Your task to perform on an android device: turn on location history Image 0: 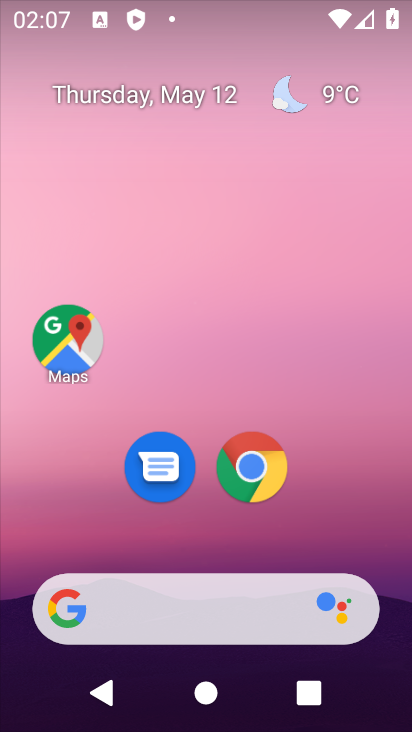
Step 0: drag from (323, 536) to (355, 183)
Your task to perform on an android device: turn on location history Image 1: 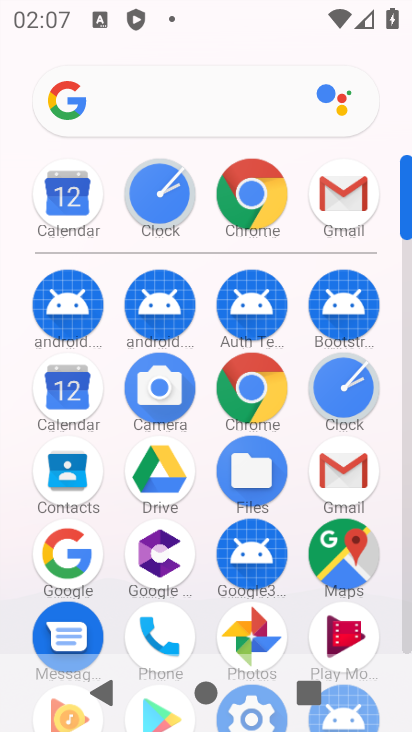
Step 1: drag from (207, 520) to (237, 184)
Your task to perform on an android device: turn on location history Image 2: 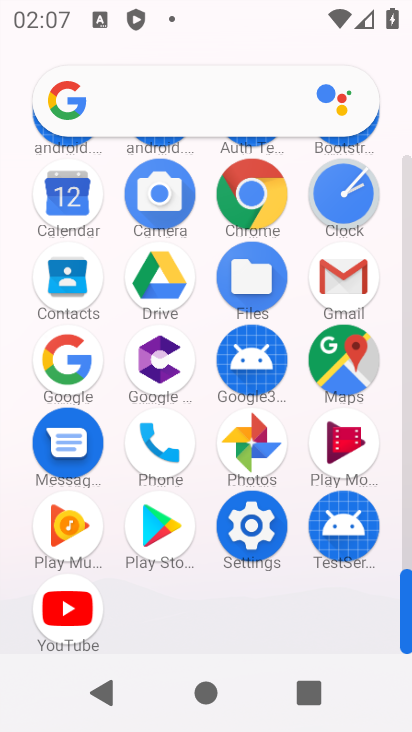
Step 2: click (251, 510)
Your task to perform on an android device: turn on location history Image 3: 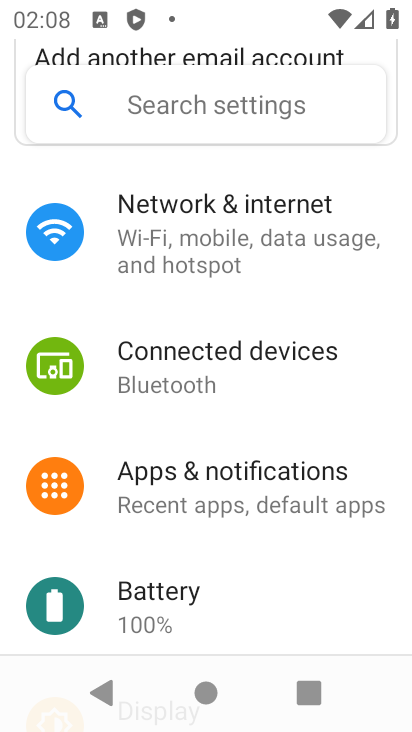
Step 3: drag from (250, 420) to (274, 220)
Your task to perform on an android device: turn on location history Image 4: 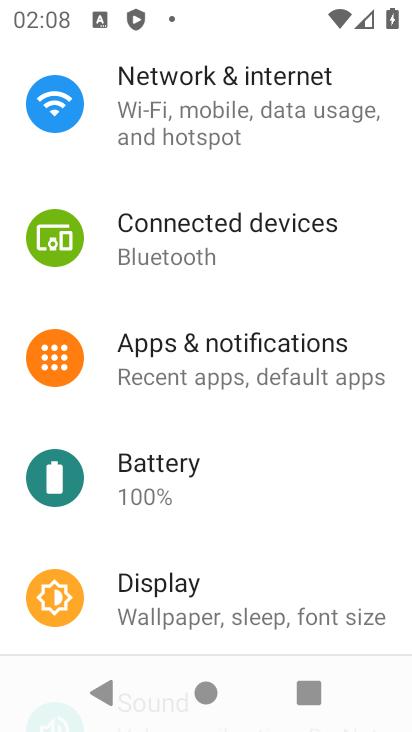
Step 4: drag from (231, 509) to (279, 274)
Your task to perform on an android device: turn on location history Image 5: 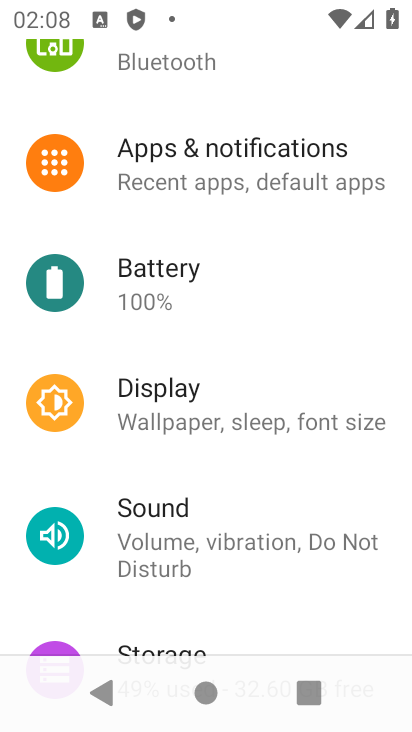
Step 5: drag from (237, 578) to (316, 191)
Your task to perform on an android device: turn on location history Image 6: 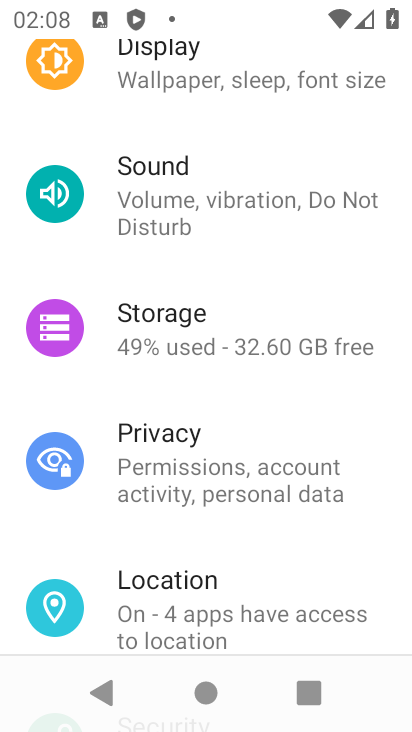
Step 6: click (203, 584)
Your task to perform on an android device: turn on location history Image 7: 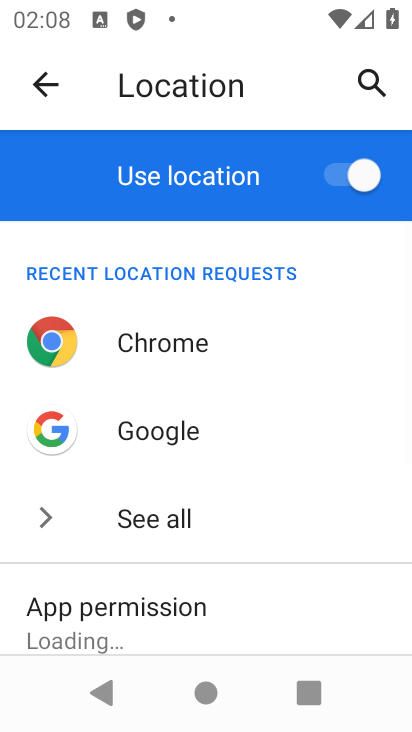
Step 7: drag from (213, 458) to (248, 206)
Your task to perform on an android device: turn on location history Image 8: 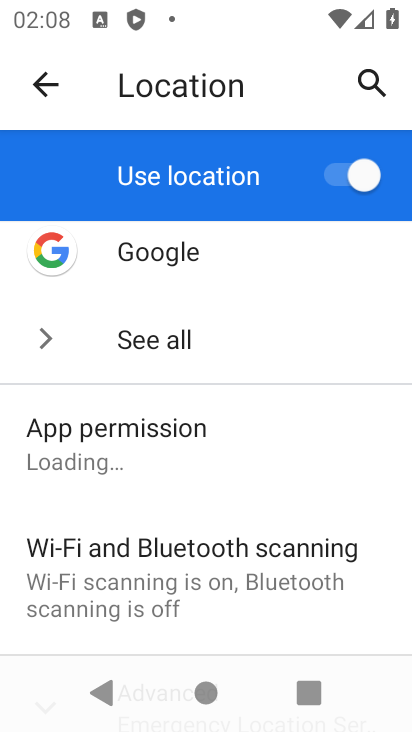
Step 8: drag from (192, 580) to (275, 173)
Your task to perform on an android device: turn on location history Image 9: 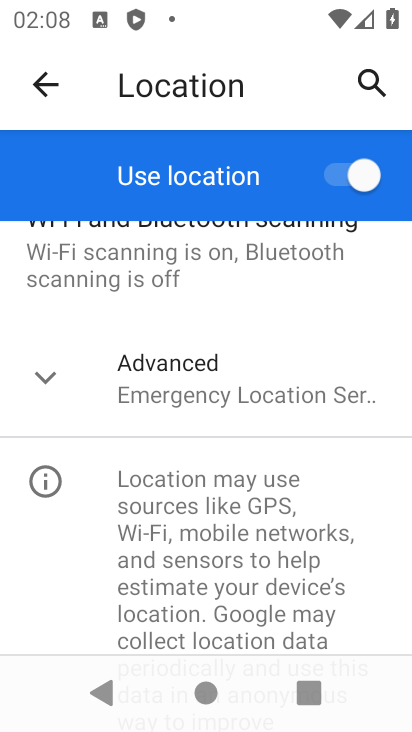
Step 9: click (177, 364)
Your task to perform on an android device: turn on location history Image 10: 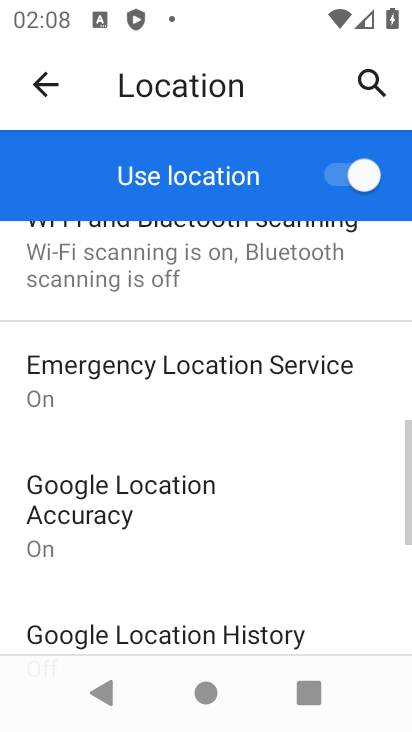
Step 10: drag from (182, 600) to (261, 342)
Your task to perform on an android device: turn on location history Image 11: 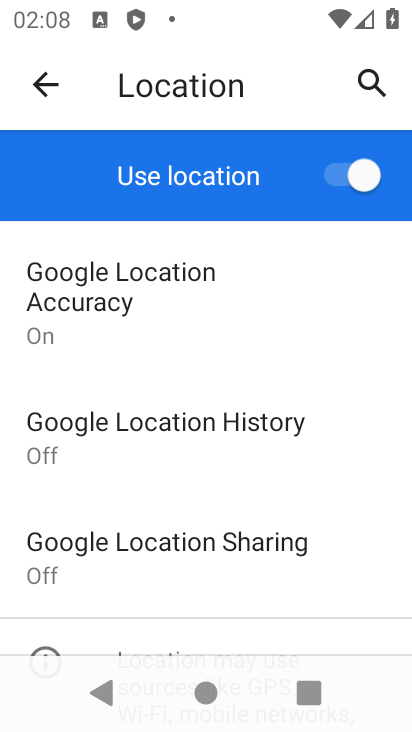
Step 11: click (166, 428)
Your task to perform on an android device: turn on location history Image 12: 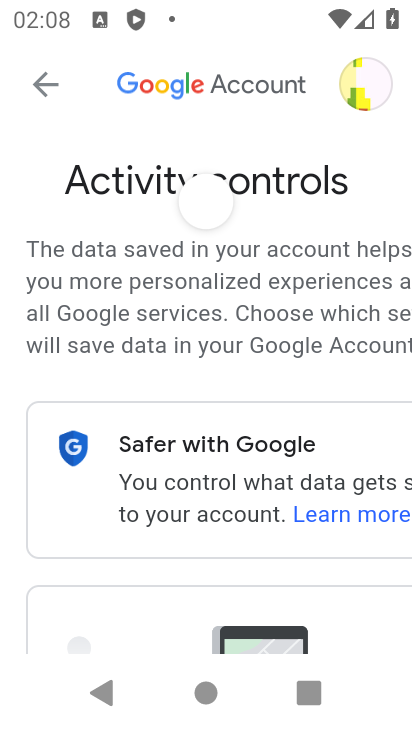
Step 12: drag from (327, 598) to (329, 140)
Your task to perform on an android device: turn on location history Image 13: 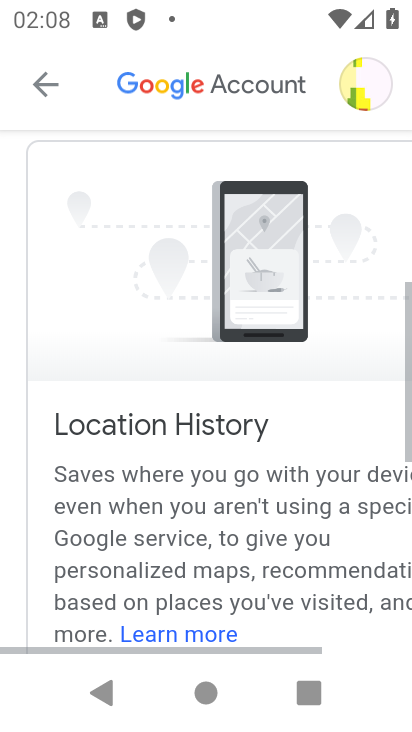
Step 13: drag from (277, 609) to (329, 268)
Your task to perform on an android device: turn on location history Image 14: 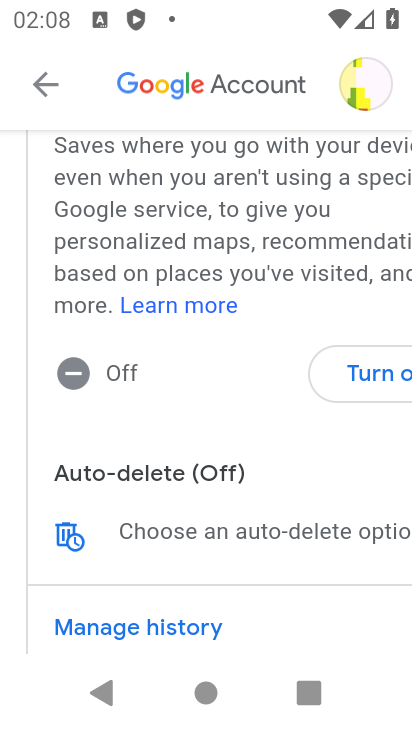
Step 14: click (370, 360)
Your task to perform on an android device: turn on location history Image 15: 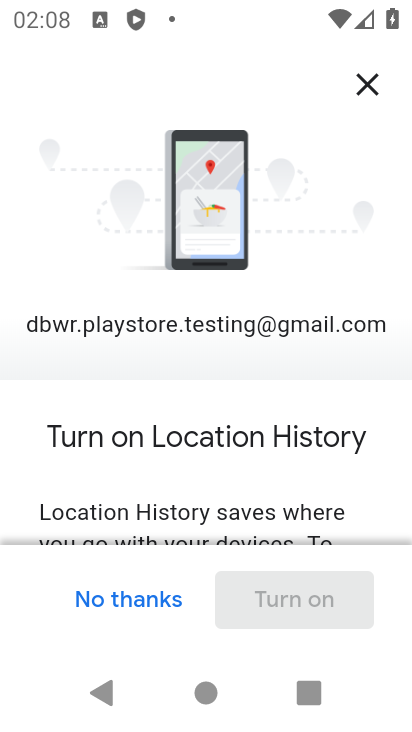
Step 15: click (151, 600)
Your task to perform on an android device: turn on location history Image 16: 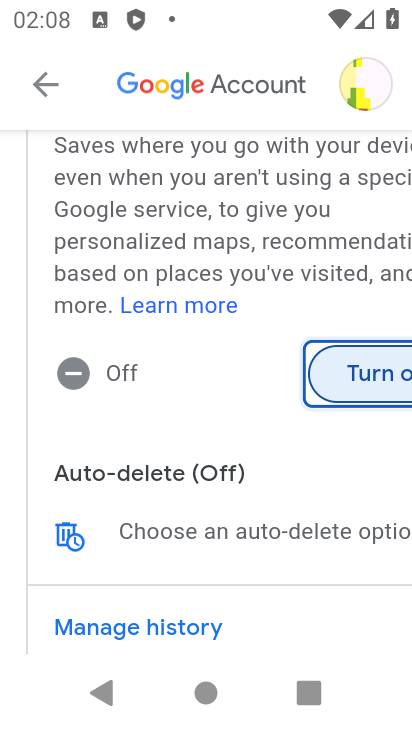
Step 16: task complete